Your task to perform on an android device: turn off priority inbox in the gmail app Image 0: 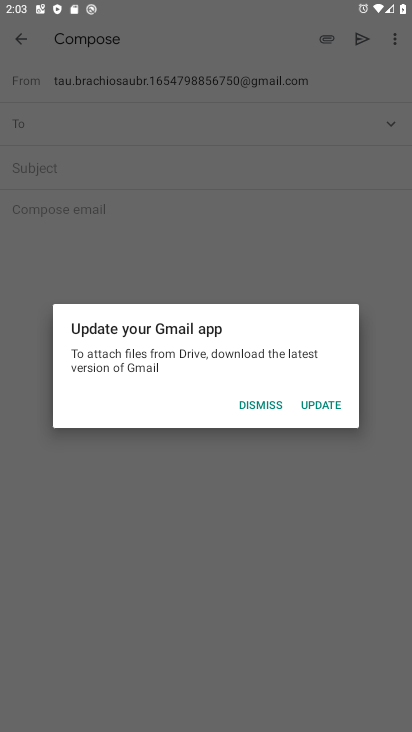
Step 0: press home button
Your task to perform on an android device: turn off priority inbox in the gmail app Image 1: 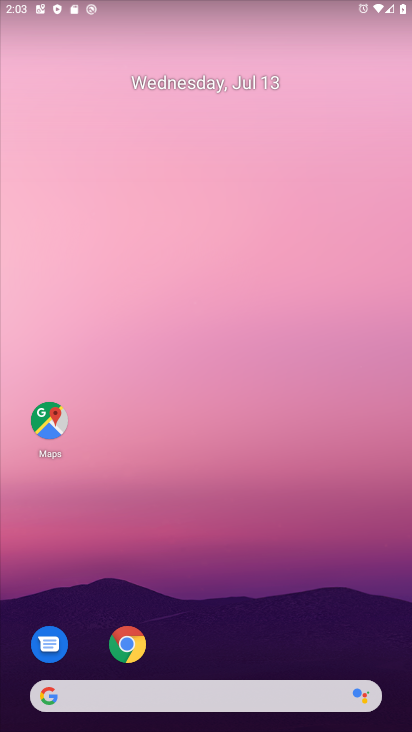
Step 1: drag from (218, 666) to (187, 1)
Your task to perform on an android device: turn off priority inbox in the gmail app Image 2: 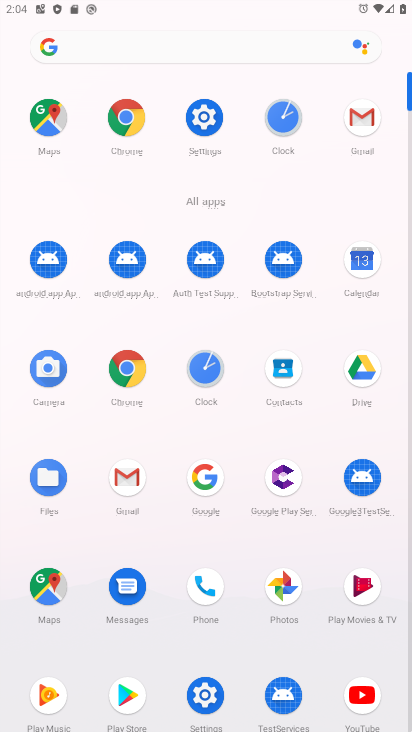
Step 2: click (132, 484)
Your task to perform on an android device: turn off priority inbox in the gmail app Image 3: 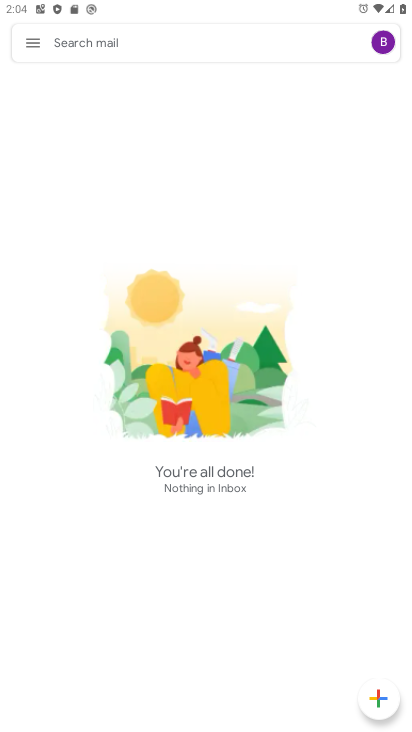
Step 3: click (28, 47)
Your task to perform on an android device: turn off priority inbox in the gmail app Image 4: 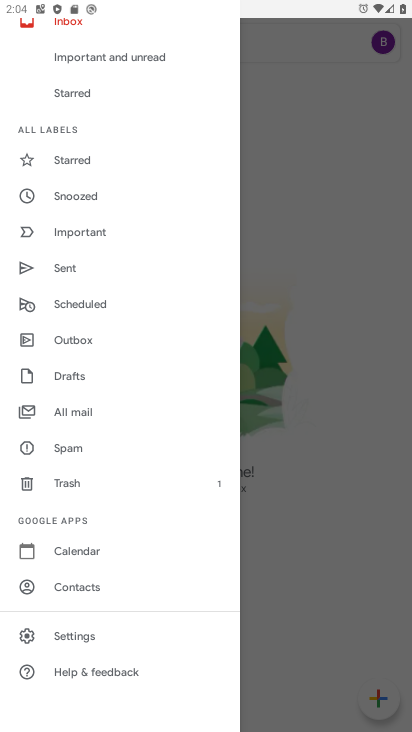
Step 4: click (94, 633)
Your task to perform on an android device: turn off priority inbox in the gmail app Image 5: 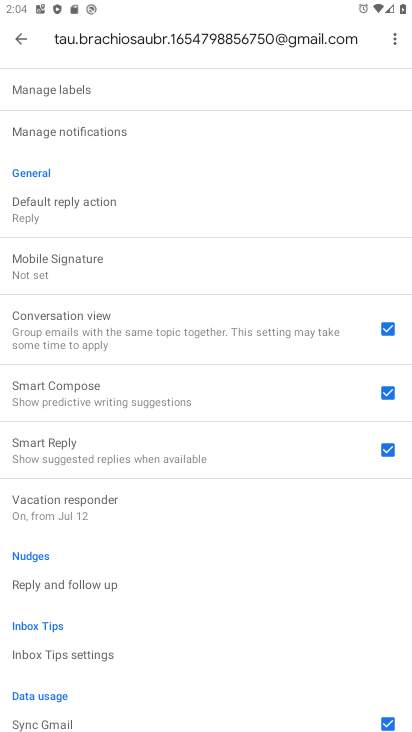
Step 5: drag from (62, 204) to (90, 476)
Your task to perform on an android device: turn off priority inbox in the gmail app Image 6: 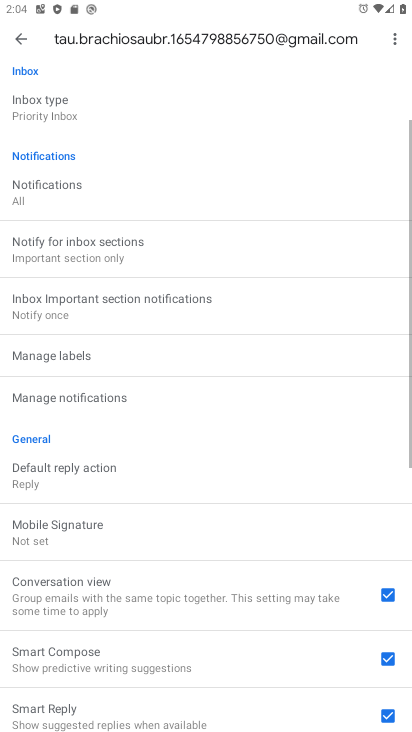
Step 6: drag from (67, 108) to (70, 279)
Your task to perform on an android device: turn off priority inbox in the gmail app Image 7: 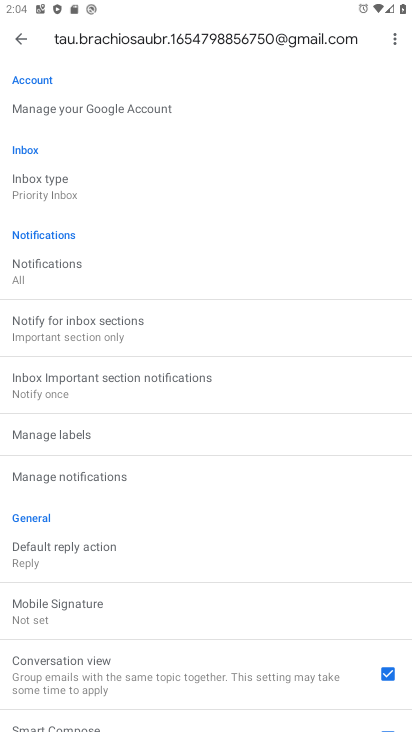
Step 7: click (50, 177)
Your task to perform on an android device: turn off priority inbox in the gmail app Image 8: 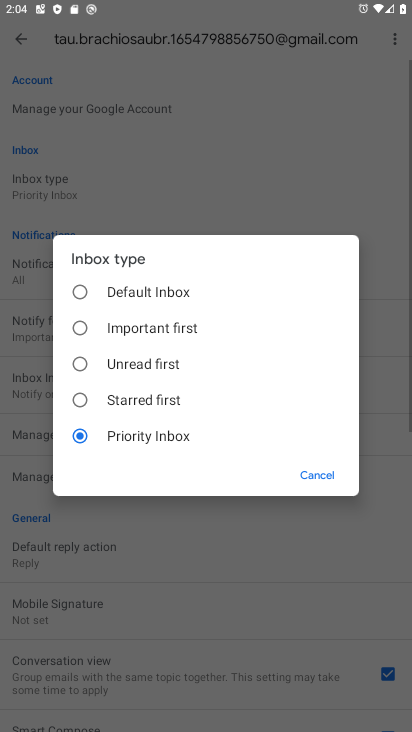
Step 8: click (95, 288)
Your task to perform on an android device: turn off priority inbox in the gmail app Image 9: 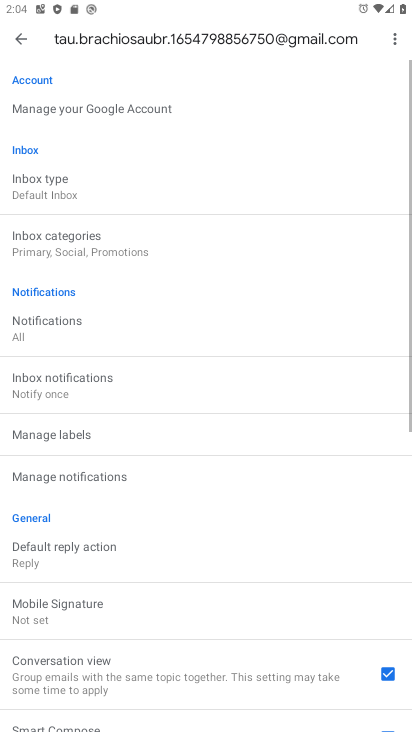
Step 9: task complete